Your task to perform on an android device: show emergency info Image 0: 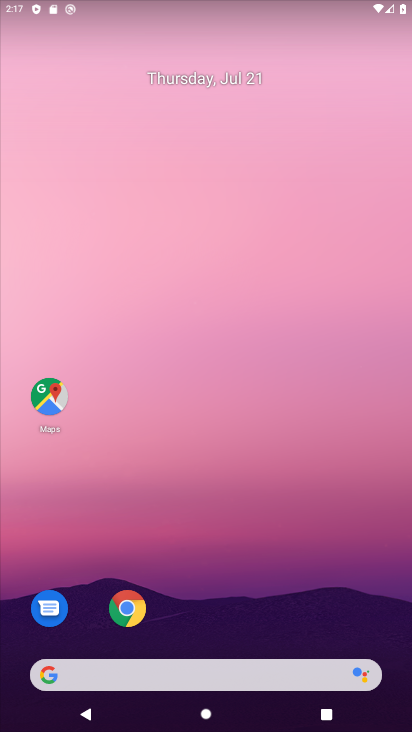
Step 0: drag from (240, 634) to (243, 5)
Your task to perform on an android device: show emergency info Image 1: 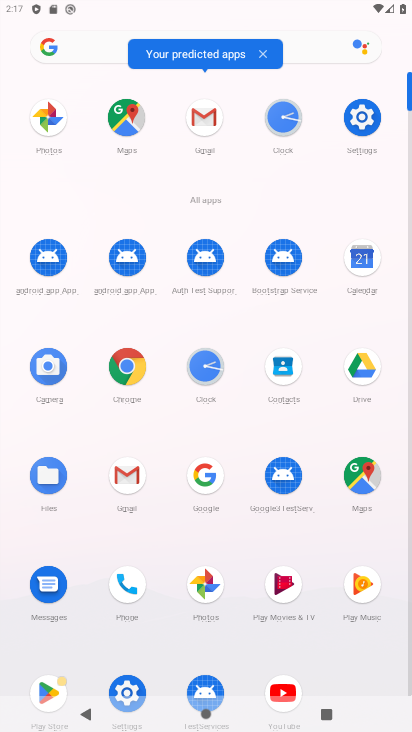
Step 1: click (362, 139)
Your task to perform on an android device: show emergency info Image 2: 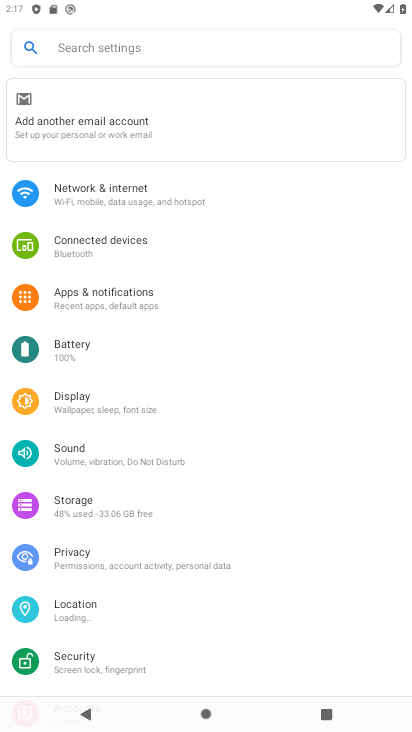
Step 2: drag from (140, 571) to (14, 282)
Your task to perform on an android device: show emergency info Image 3: 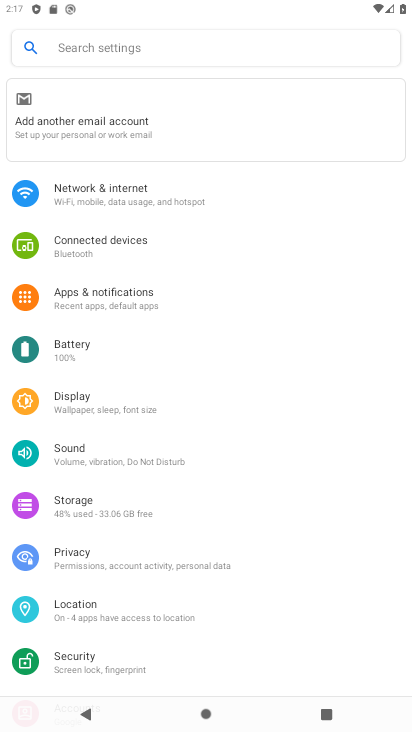
Step 3: drag from (158, 671) to (102, 158)
Your task to perform on an android device: show emergency info Image 4: 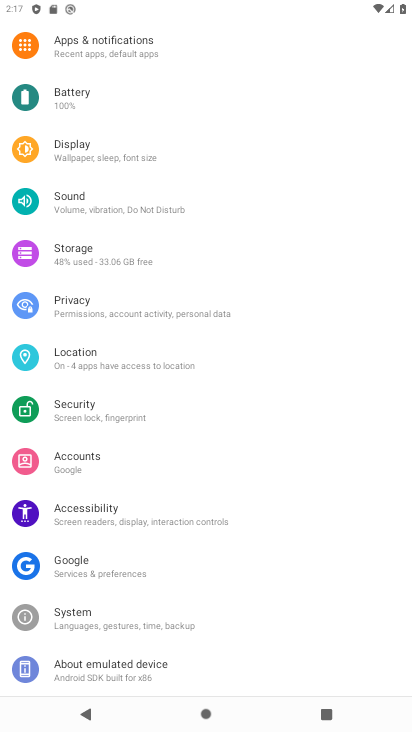
Step 4: drag from (166, 677) to (105, 349)
Your task to perform on an android device: show emergency info Image 5: 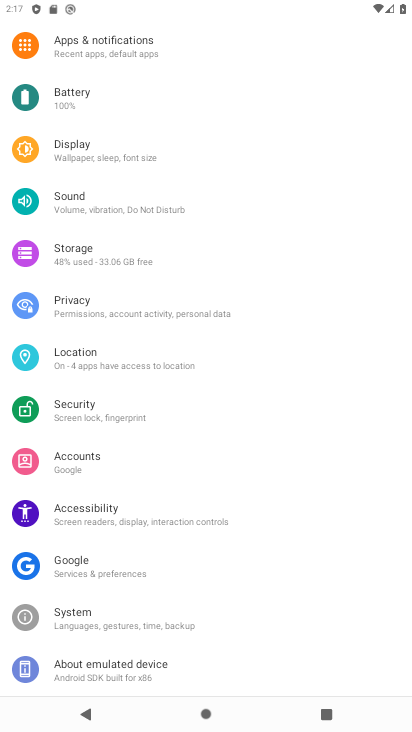
Step 5: click (108, 679)
Your task to perform on an android device: show emergency info Image 6: 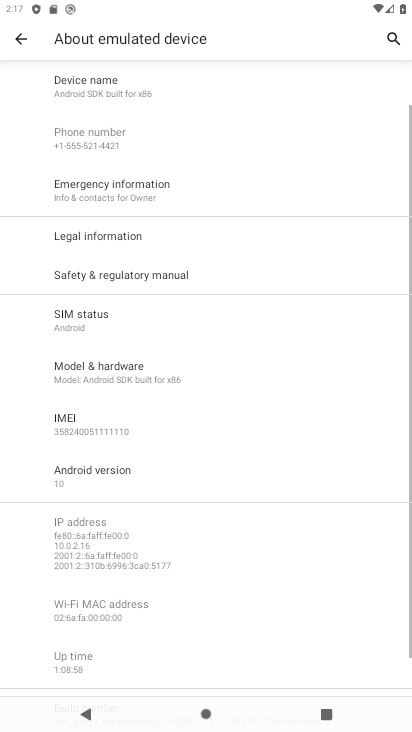
Step 6: click (123, 194)
Your task to perform on an android device: show emergency info Image 7: 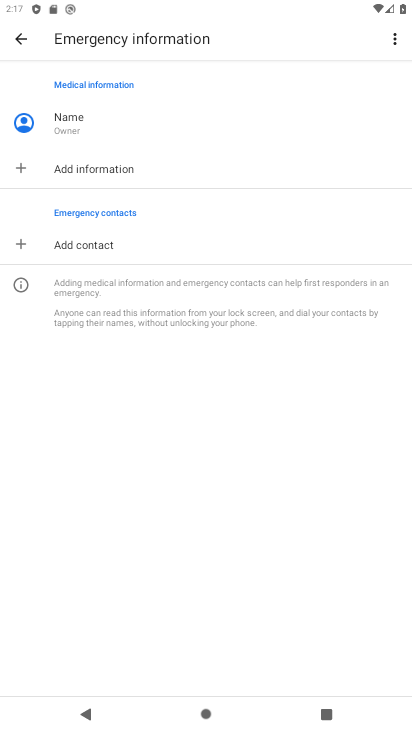
Step 7: task complete